Your task to perform on an android device: Open Youtube and go to the subscriptions tab Image 0: 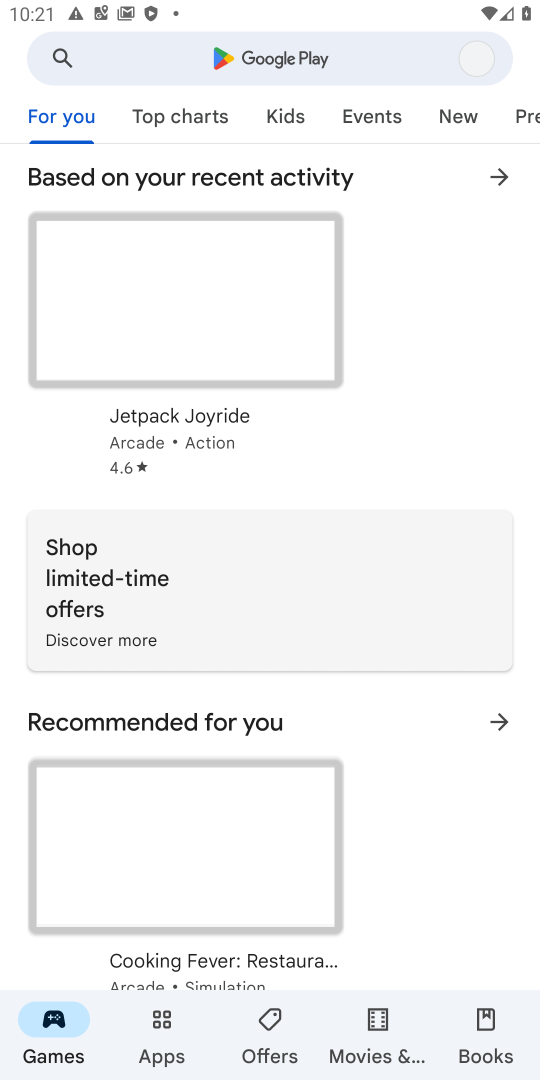
Step 0: press home button
Your task to perform on an android device: Open Youtube and go to the subscriptions tab Image 1: 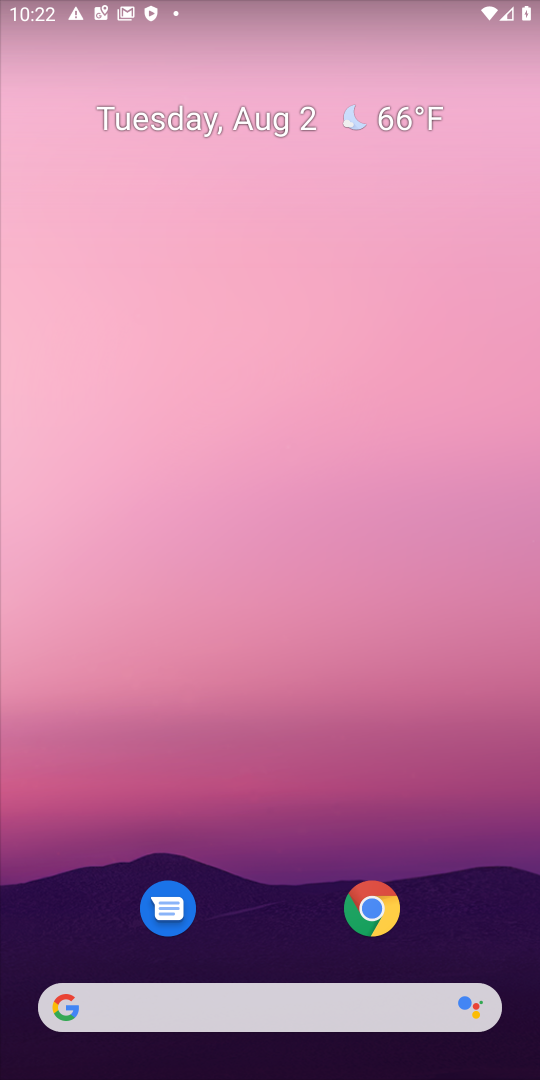
Step 1: drag from (287, 838) to (338, 0)
Your task to perform on an android device: Open Youtube and go to the subscriptions tab Image 2: 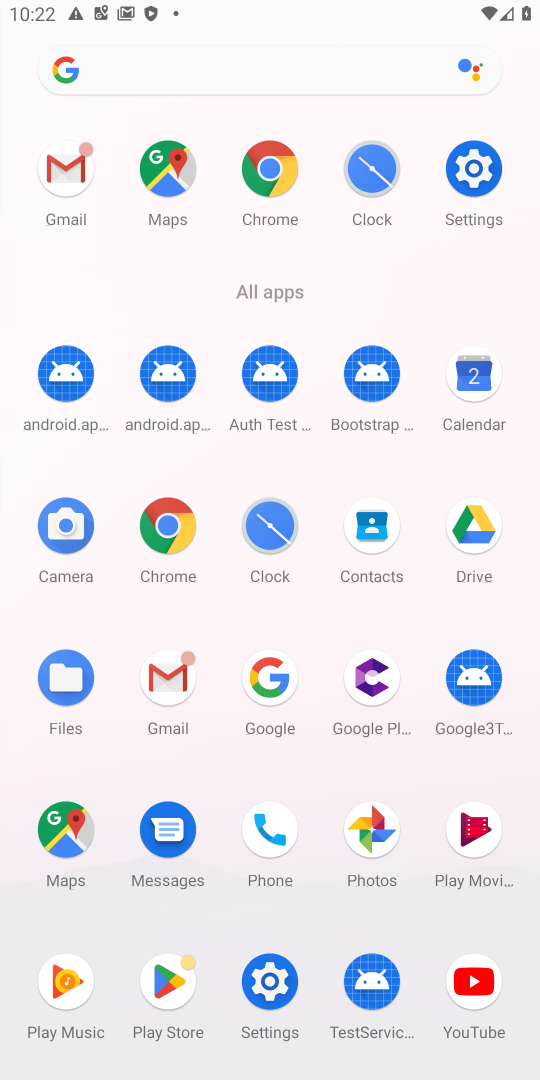
Step 2: click (462, 986)
Your task to perform on an android device: Open Youtube and go to the subscriptions tab Image 3: 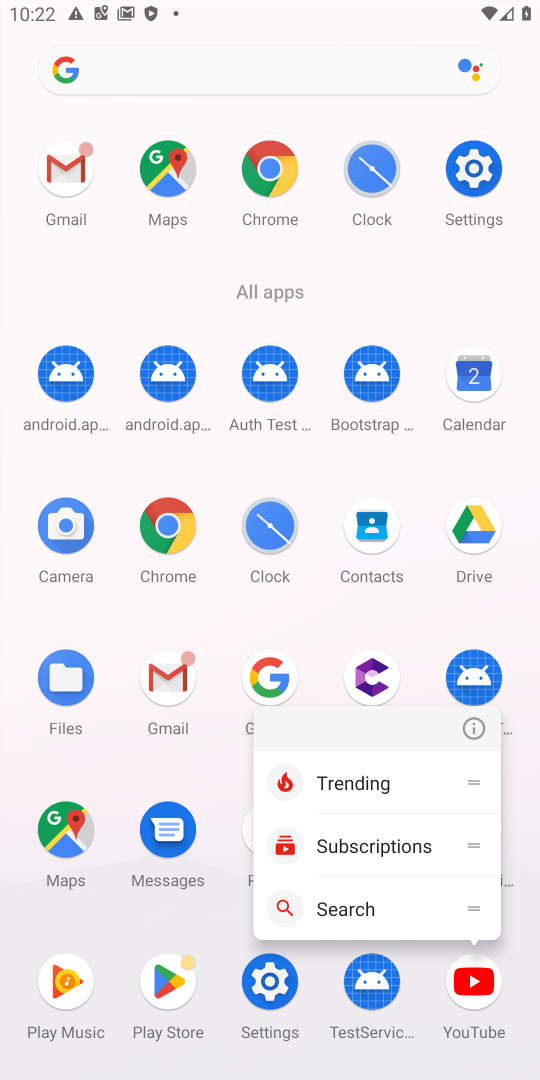
Step 3: click (485, 990)
Your task to perform on an android device: Open Youtube and go to the subscriptions tab Image 4: 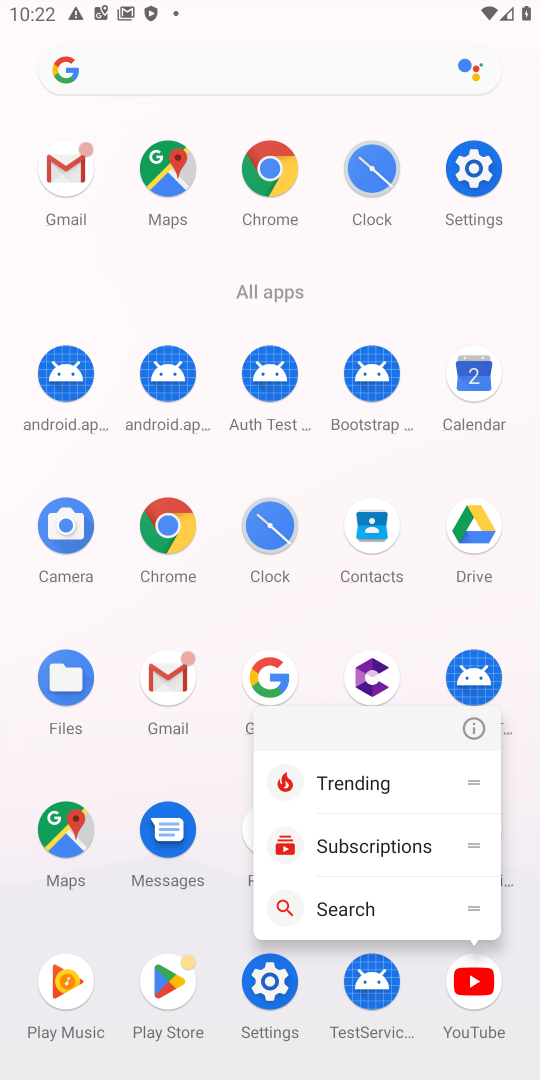
Step 4: click (480, 992)
Your task to perform on an android device: Open Youtube and go to the subscriptions tab Image 5: 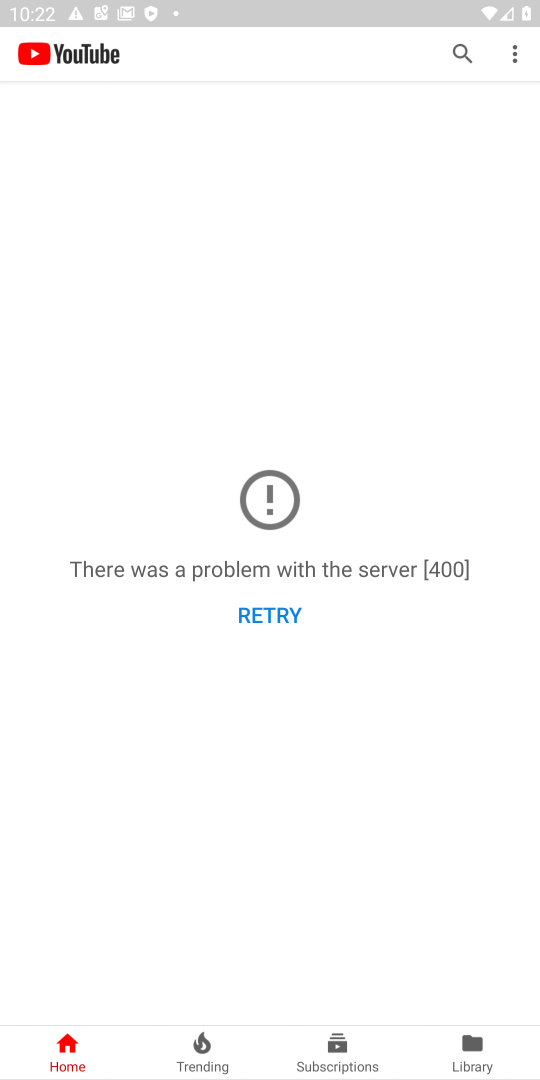
Step 5: click (327, 1048)
Your task to perform on an android device: Open Youtube and go to the subscriptions tab Image 6: 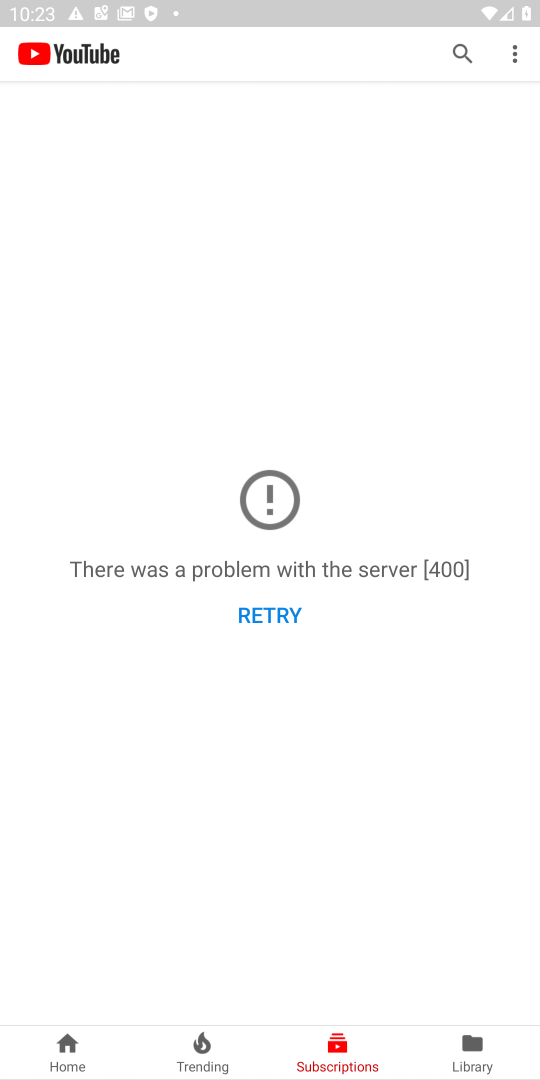
Step 6: task complete